Your task to perform on an android device: Go to eBay Image 0: 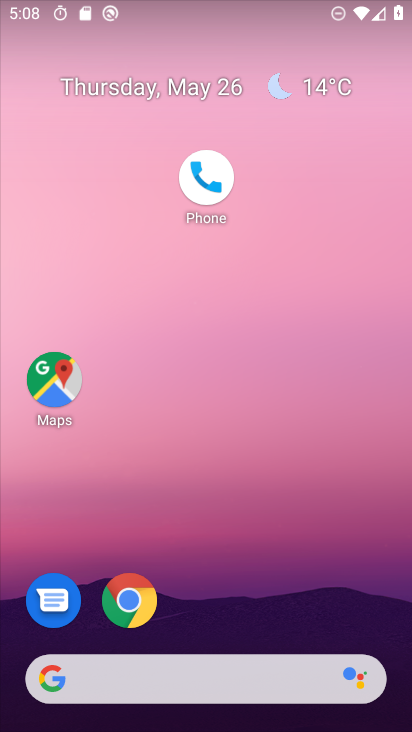
Step 0: click (211, 690)
Your task to perform on an android device: Go to eBay Image 1: 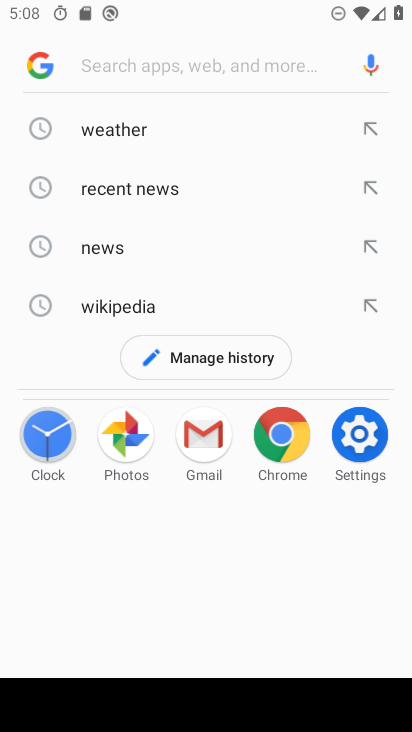
Step 1: type "ebay"
Your task to perform on an android device: Go to eBay Image 2: 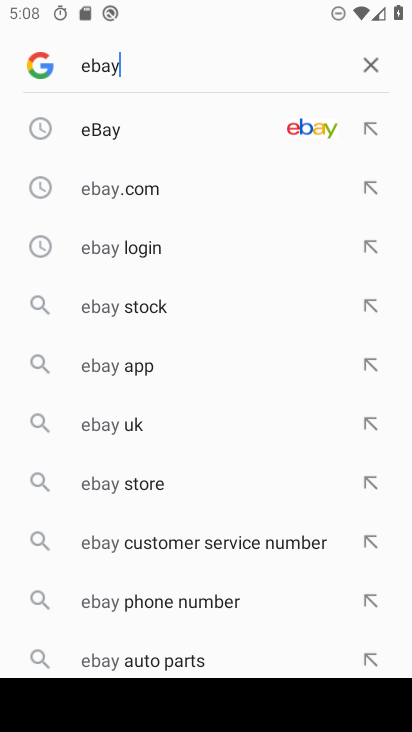
Step 2: click (267, 141)
Your task to perform on an android device: Go to eBay Image 3: 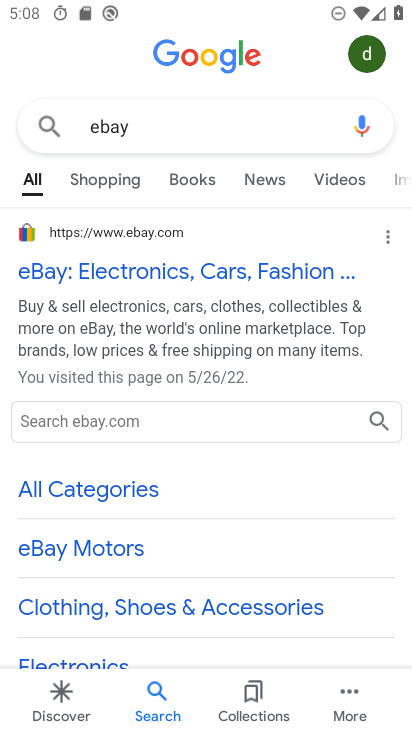
Step 3: task complete